Your task to perform on an android device: set an alarm Image 0: 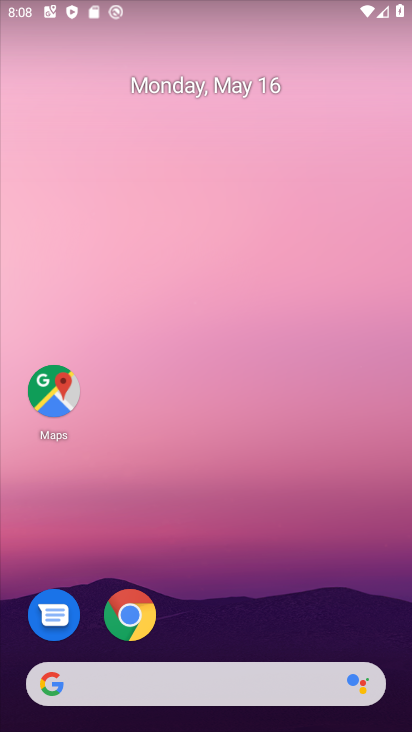
Step 0: drag from (201, 641) to (290, 1)
Your task to perform on an android device: set an alarm Image 1: 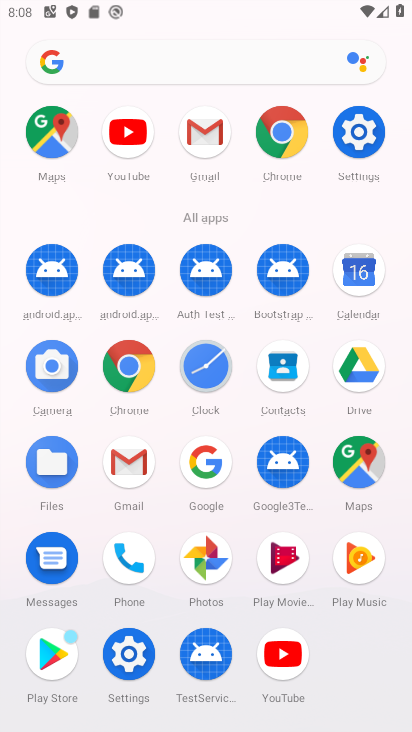
Step 1: click (190, 372)
Your task to perform on an android device: set an alarm Image 2: 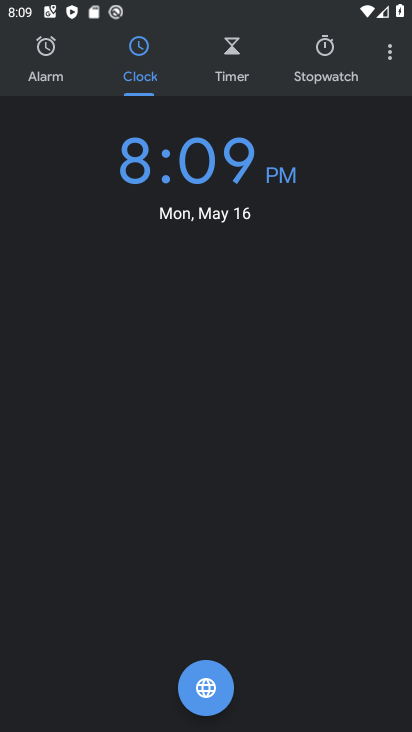
Step 2: click (46, 61)
Your task to perform on an android device: set an alarm Image 3: 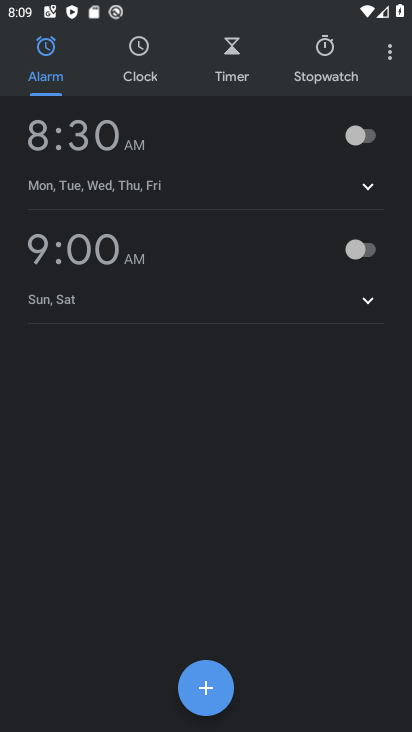
Step 3: click (366, 262)
Your task to perform on an android device: set an alarm Image 4: 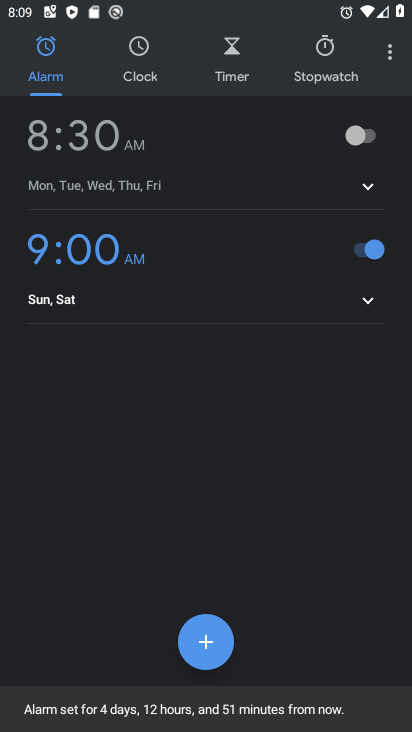
Step 4: task complete